Your task to perform on an android device: What's on my calendar today? Image 0: 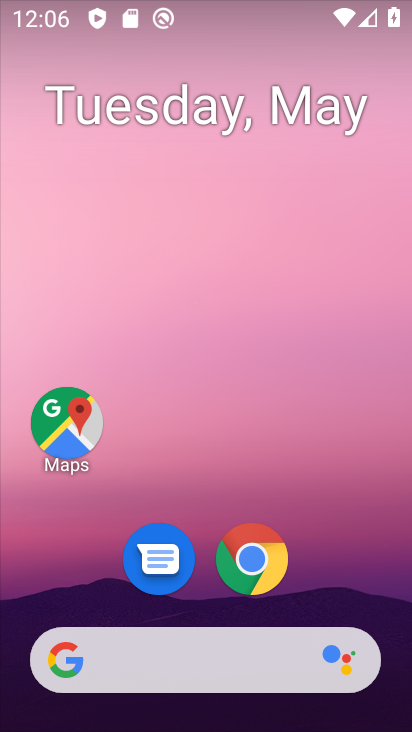
Step 0: drag from (334, 407) to (148, 3)
Your task to perform on an android device: What's on my calendar today? Image 1: 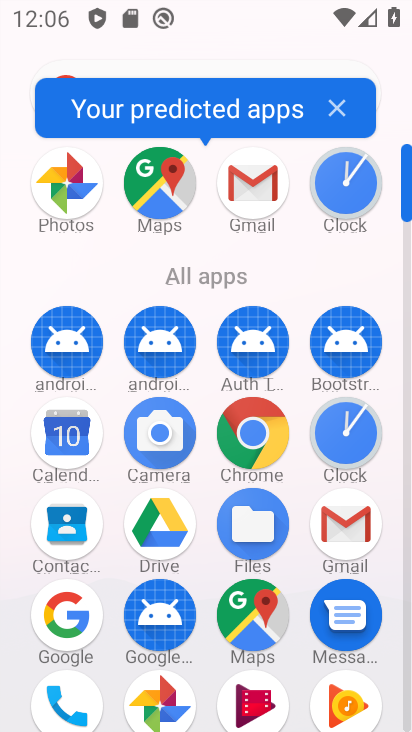
Step 1: click (76, 438)
Your task to perform on an android device: What's on my calendar today? Image 2: 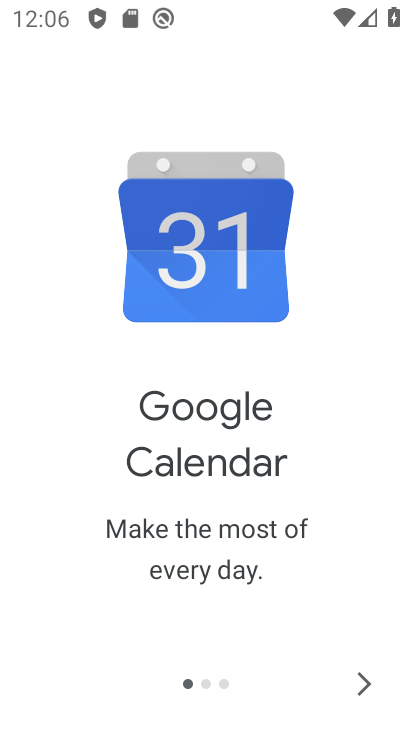
Step 2: click (367, 688)
Your task to perform on an android device: What's on my calendar today? Image 3: 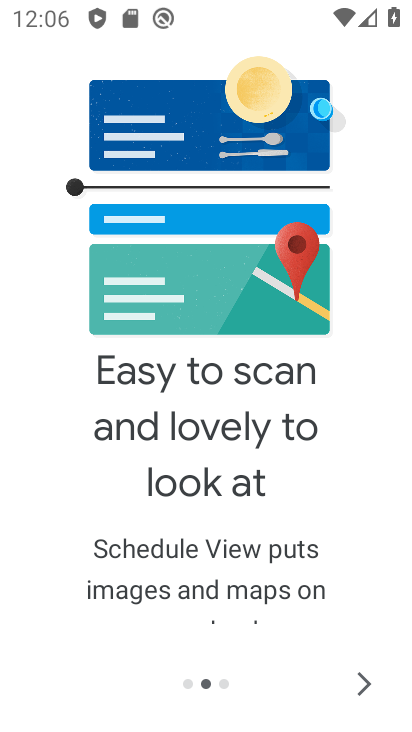
Step 3: click (367, 688)
Your task to perform on an android device: What's on my calendar today? Image 4: 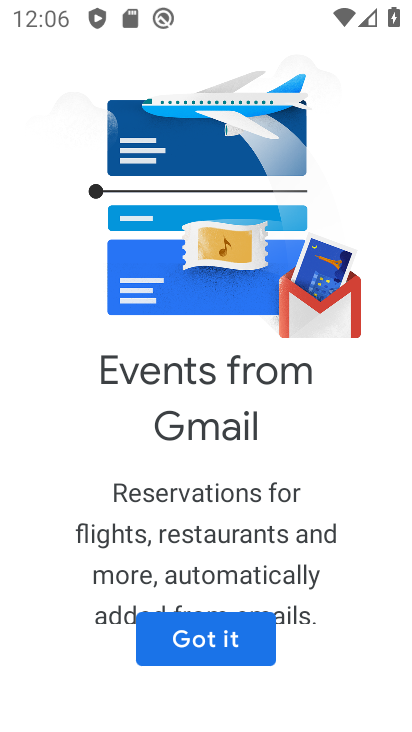
Step 4: click (192, 642)
Your task to perform on an android device: What's on my calendar today? Image 5: 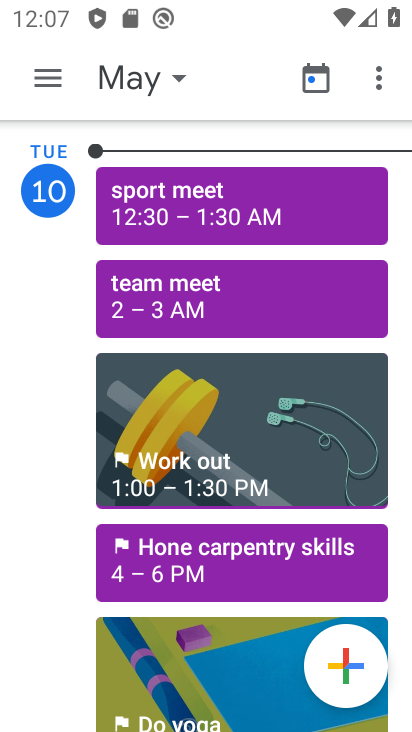
Step 5: task complete